Your task to perform on an android device: open the mobile data screen to see how much data has been used Image 0: 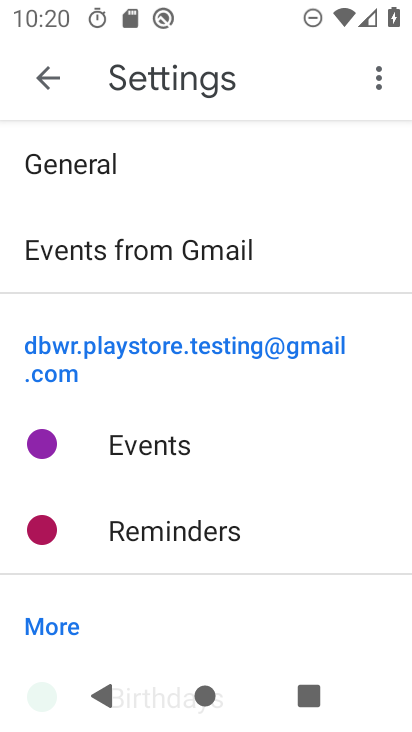
Step 0: press back button
Your task to perform on an android device: open the mobile data screen to see how much data has been used Image 1: 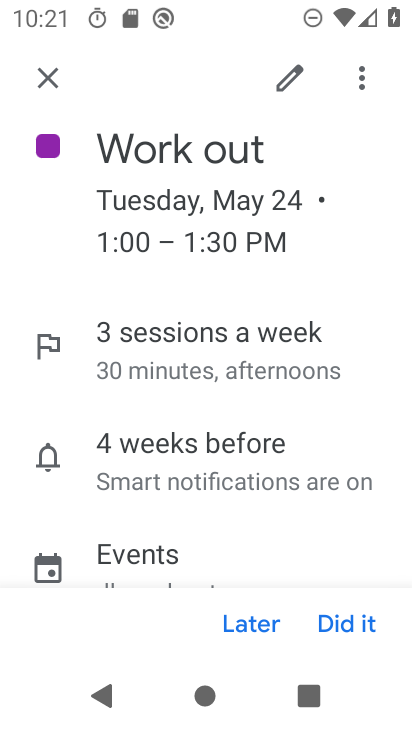
Step 1: press back button
Your task to perform on an android device: open the mobile data screen to see how much data has been used Image 2: 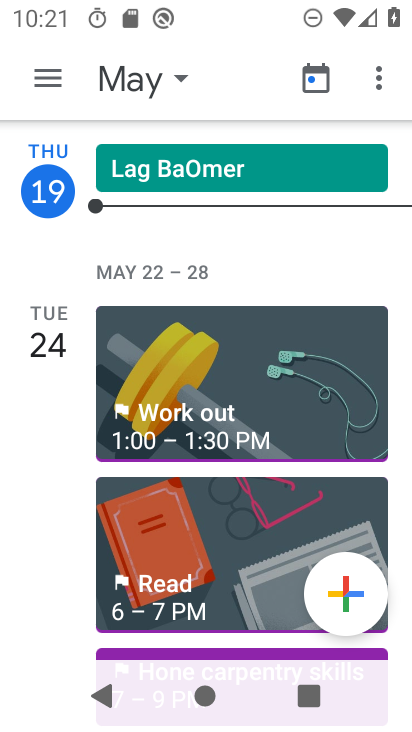
Step 2: press home button
Your task to perform on an android device: open the mobile data screen to see how much data has been used Image 3: 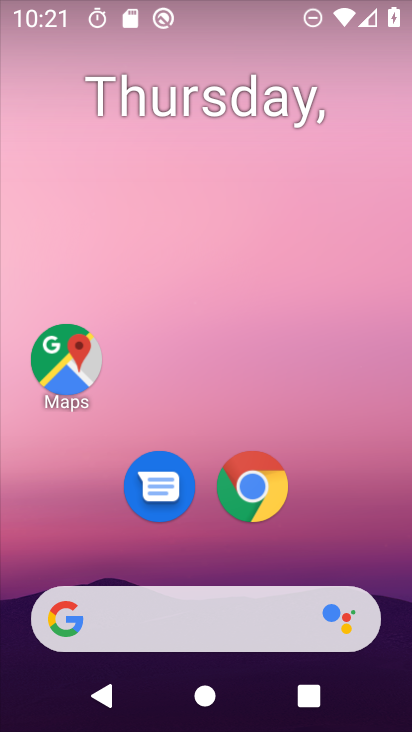
Step 3: drag from (189, 588) to (317, 53)
Your task to perform on an android device: open the mobile data screen to see how much data has been used Image 4: 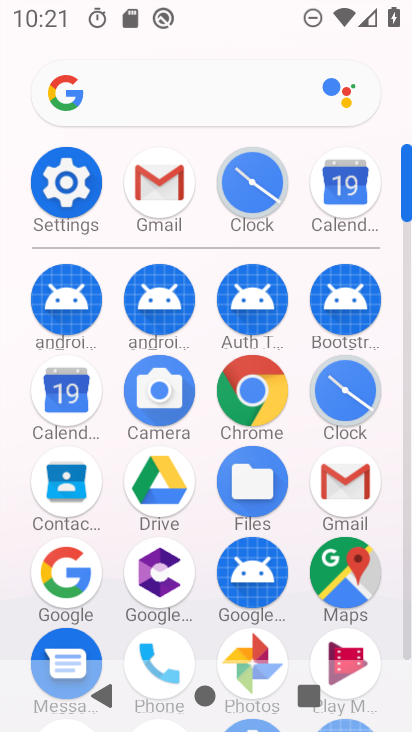
Step 4: click (82, 187)
Your task to perform on an android device: open the mobile data screen to see how much data has been used Image 5: 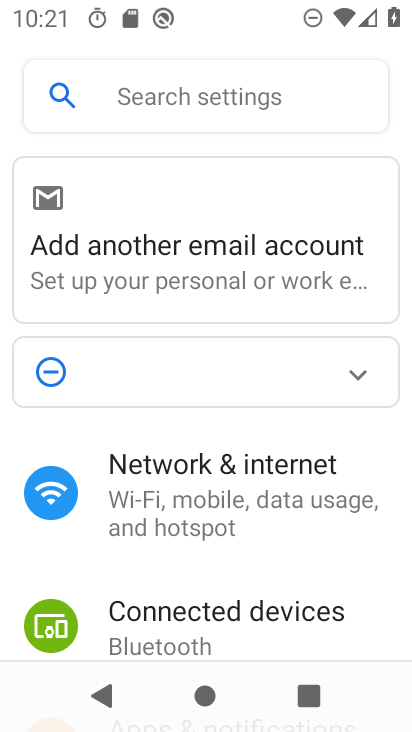
Step 5: click (203, 500)
Your task to perform on an android device: open the mobile data screen to see how much data has been used Image 6: 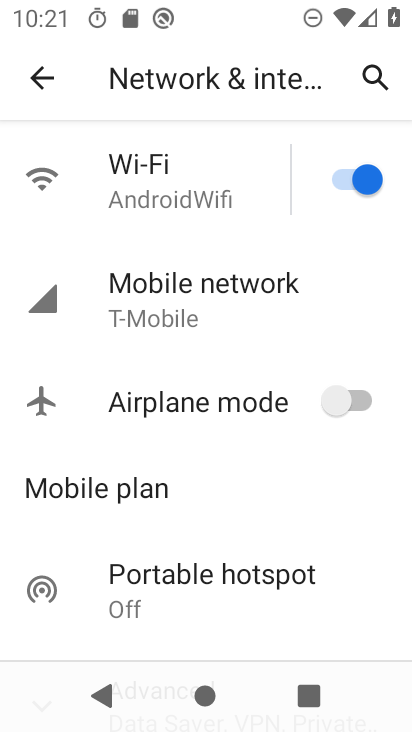
Step 6: click (195, 299)
Your task to perform on an android device: open the mobile data screen to see how much data has been used Image 7: 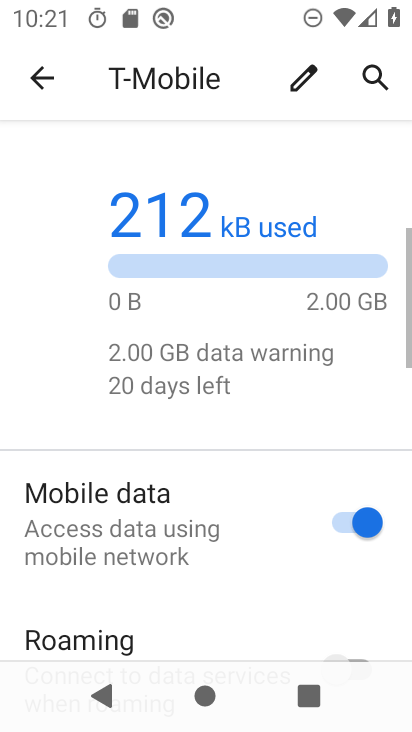
Step 7: drag from (155, 599) to (271, 121)
Your task to perform on an android device: open the mobile data screen to see how much data has been used Image 8: 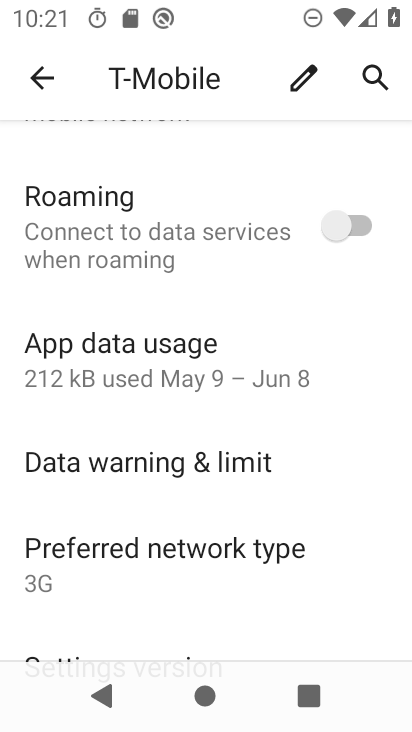
Step 8: click (100, 373)
Your task to perform on an android device: open the mobile data screen to see how much data has been used Image 9: 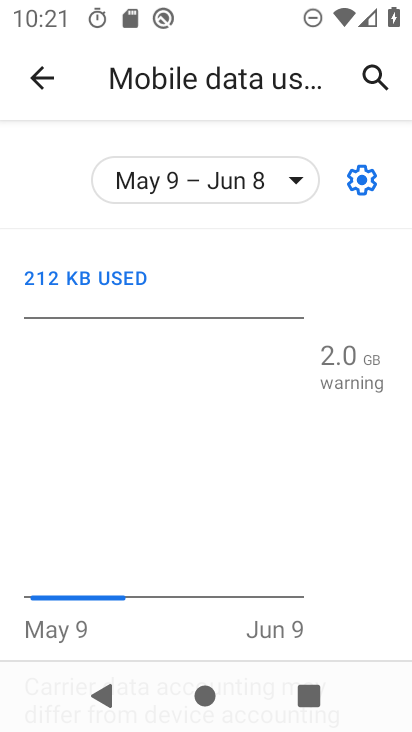
Step 9: task complete